Your task to perform on an android device: Add "razer blade" to the cart on bestbuy.com Image 0: 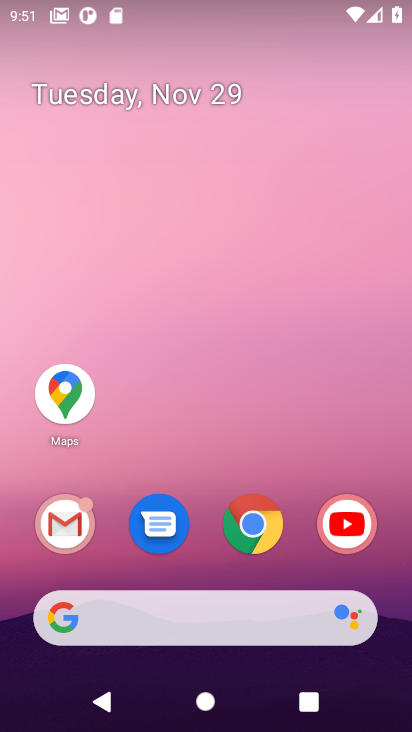
Step 0: click (256, 534)
Your task to perform on an android device: Add "razer blade" to the cart on bestbuy.com Image 1: 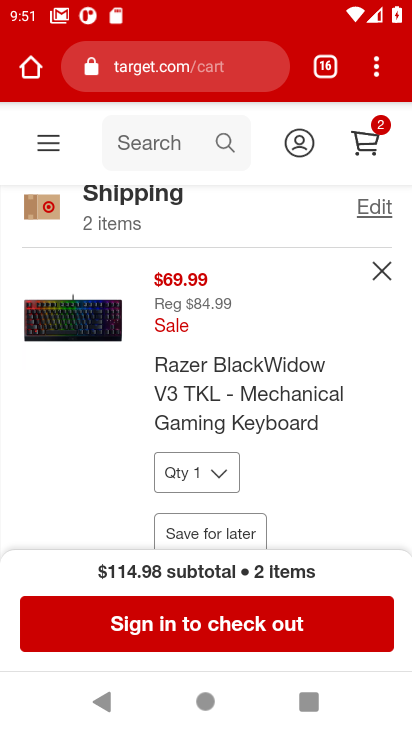
Step 1: click (129, 70)
Your task to perform on an android device: Add "razer blade" to the cart on bestbuy.com Image 2: 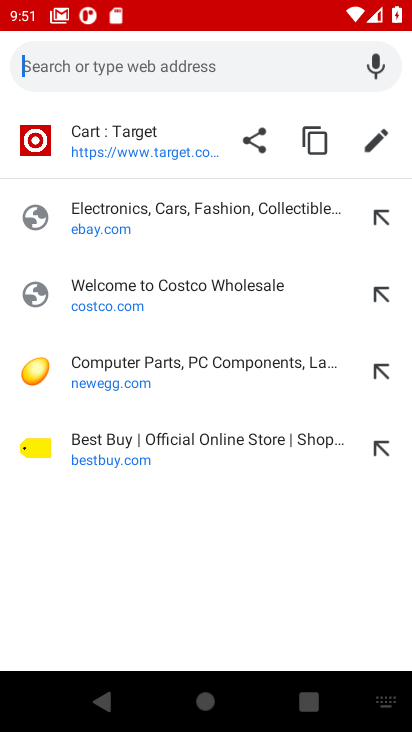
Step 2: click (115, 462)
Your task to perform on an android device: Add "razer blade" to the cart on bestbuy.com Image 3: 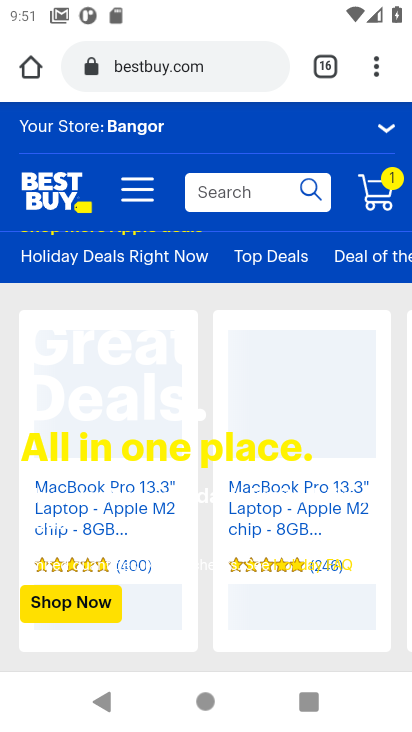
Step 3: click (221, 192)
Your task to perform on an android device: Add "razer blade" to the cart on bestbuy.com Image 4: 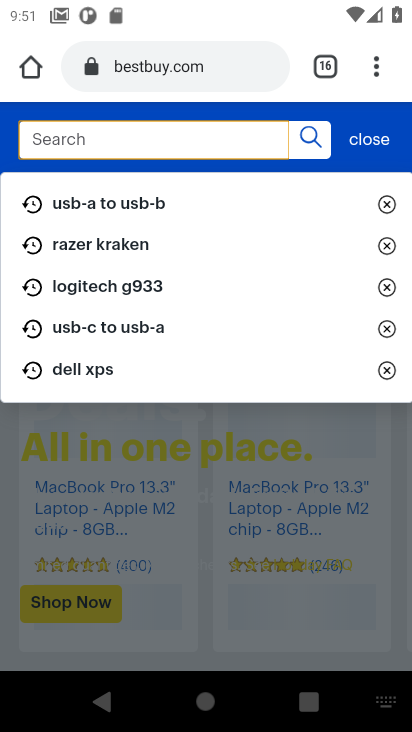
Step 4: type "razer blade"
Your task to perform on an android device: Add "razer blade" to the cart on bestbuy.com Image 5: 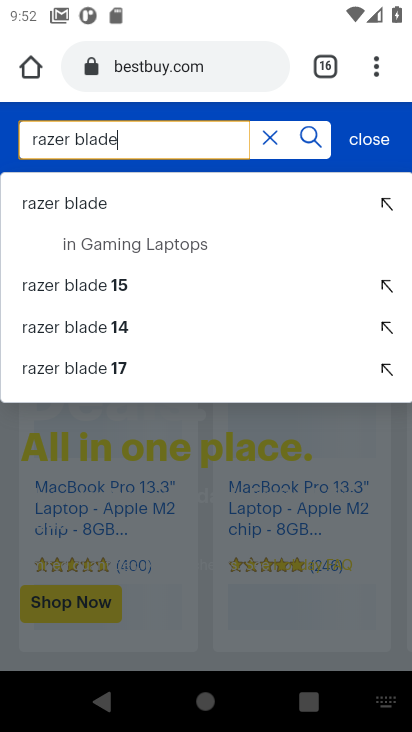
Step 5: click (69, 210)
Your task to perform on an android device: Add "razer blade" to the cart on bestbuy.com Image 6: 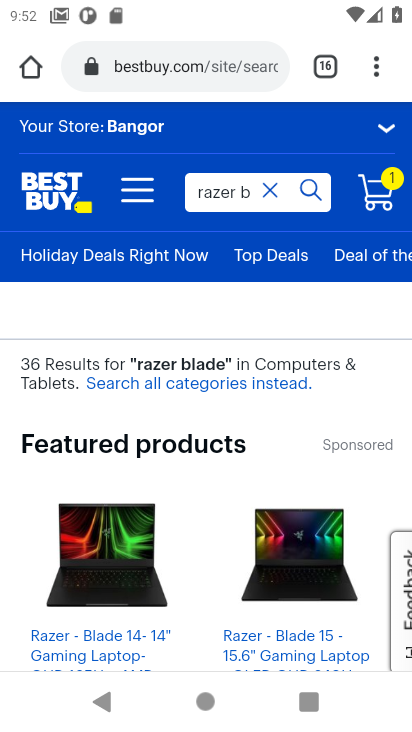
Step 6: drag from (180, 525) to (178, 253)
Your task to perform on an android device: Add "razer blade" to the cart on bestbuy.com Image 7: 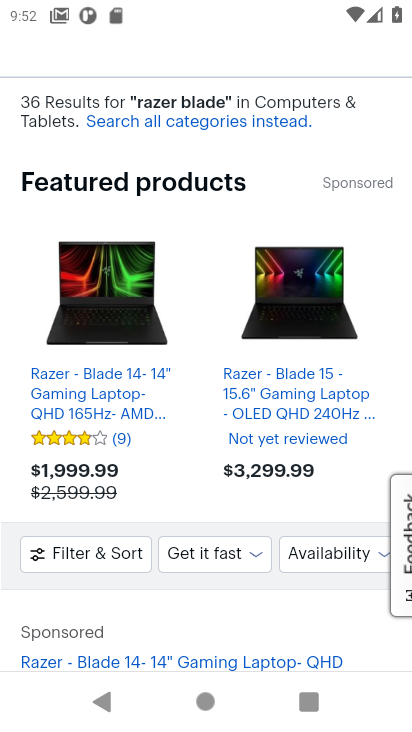
Step 7: drag from (147, 476) to (166, 177)
Your task to perform on an android device: Add "razer blade" to the cart on bestbuy.com Image 8: 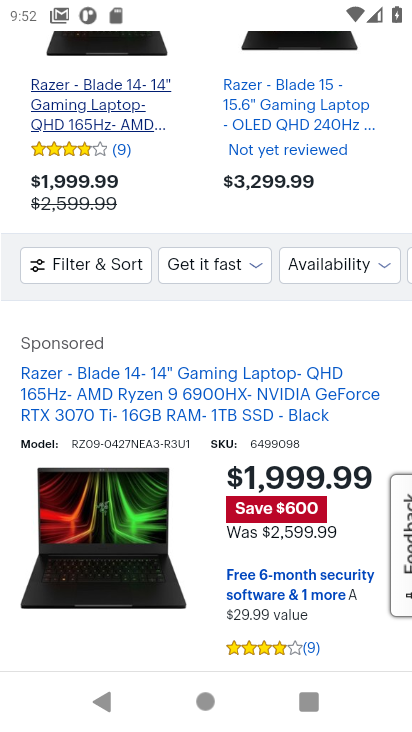
Step 8: drag from (172, 454) to (177, 288)
Your task to perform on an android device: Add "razer blade" to the cart on bestbuy.com Image 9: 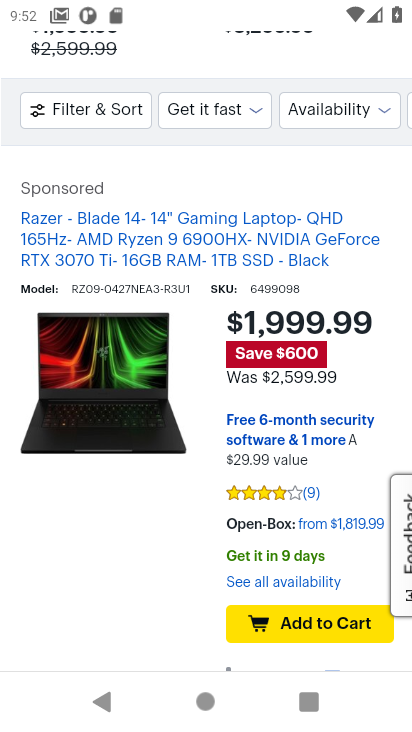
Step 9: click (317, 624)
Your task to perform on an android device: Add "razer blade" to the cart on bestbuy.com Image 10: 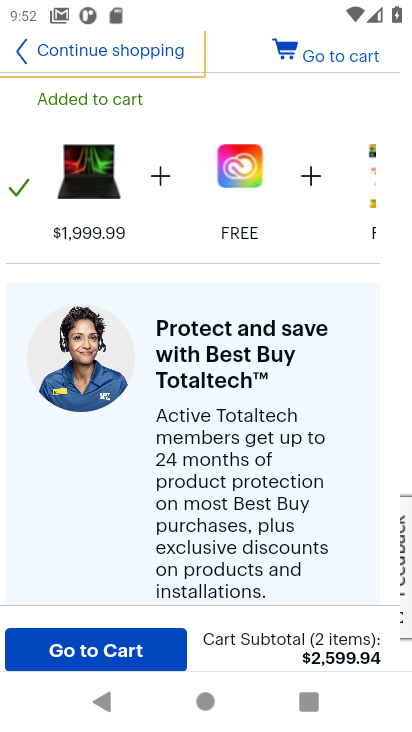
Step 10: task complete